Your task to perform on an android device: turn off notifications settings in the gmail app Image 0: 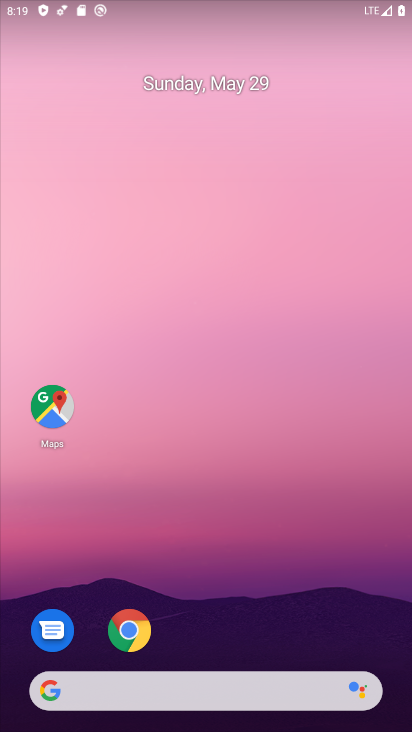
Step 0: drag from (267, 643) to (163, 32)
Your task to perform on an android device: turn off notifications settings in the gmail app Image 1: 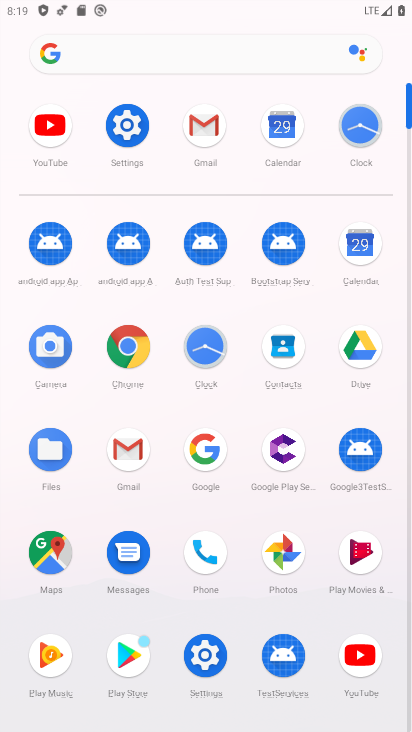
Step 1: click (131, 126)
Your task to perform on an android device: turn off notifications settings in the gmail app Image 2: 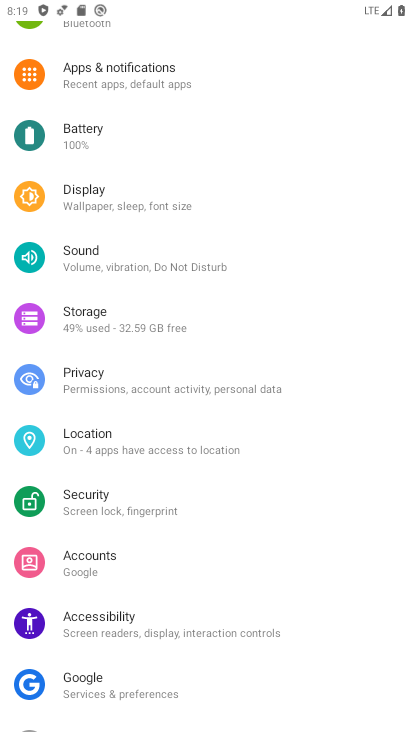
Step 2: click (108, 78)
Your task to perform on an android device: turn off notifications settings in the gmail app Image 3: 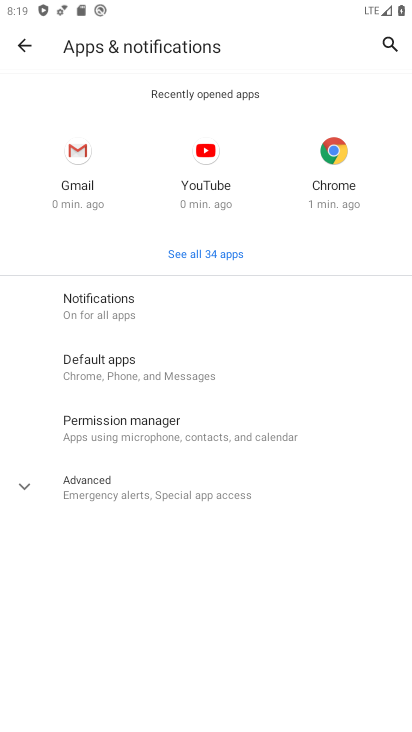
Step 3: task complete